Your task to perform on an android device: open app "Microsoft Authenticator" (install if not already installed), go to login, and select forgot password Image 0: 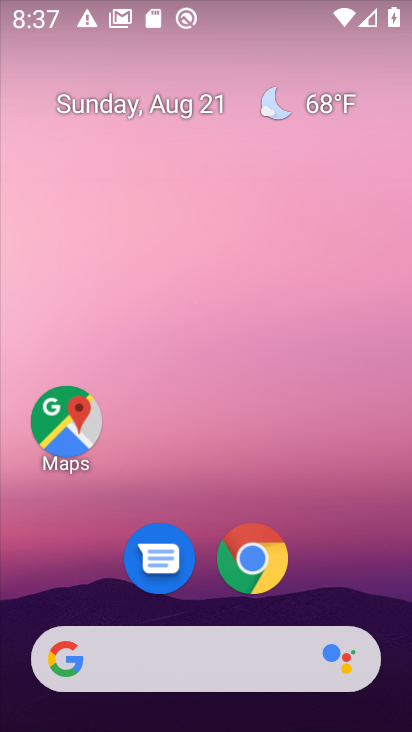
Step 0: drag from (140, 659) to (235, 140)
Your task to perform on an android device: open app "Microsoft Authenticator" (install if not already installed), go to login, and select forgot password Image 1: 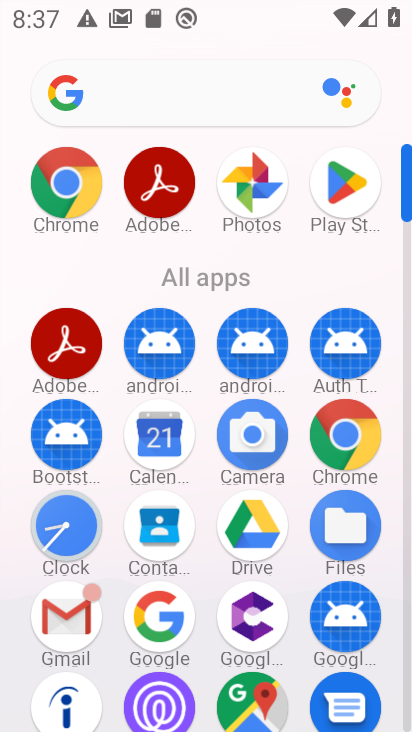
Step 1: click (338, 171)
Your task to perform on an android device: open app "Microsoft Authenticator" (install if not already installed), go to login, and select forgot password Image 2: 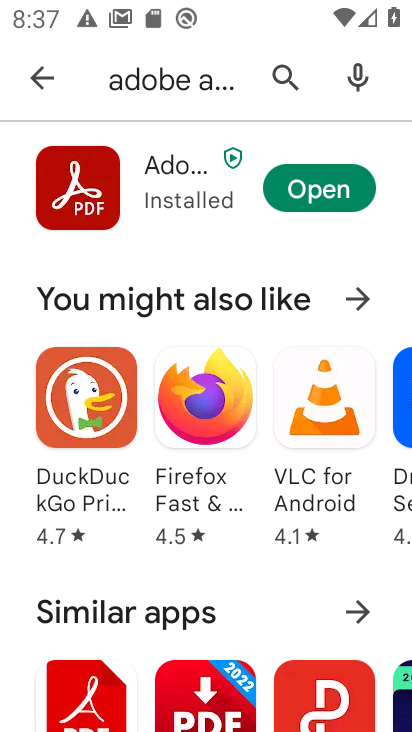
Step 2: click (291, 78)
Your task to perform on an android device: open app "Microsoft Authenticator" (install if not already installed), go to login, and select forgot password Image 3: 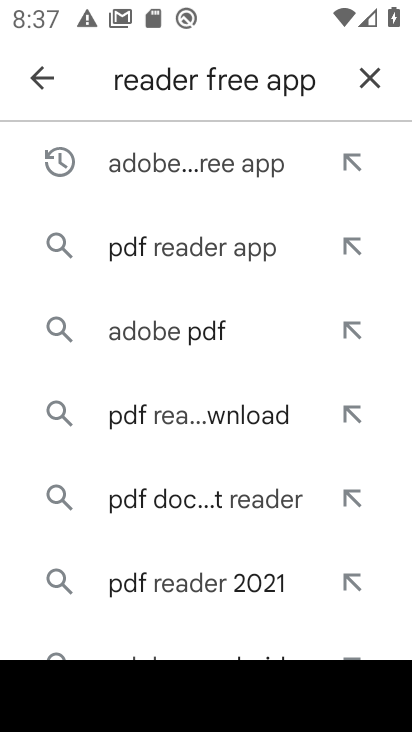
Step 3: click (376, 83)
Your task to perform on an android device: open app "Microsoft Authenticator" (install if not already installed), go to login, and select forgot password Image 4: 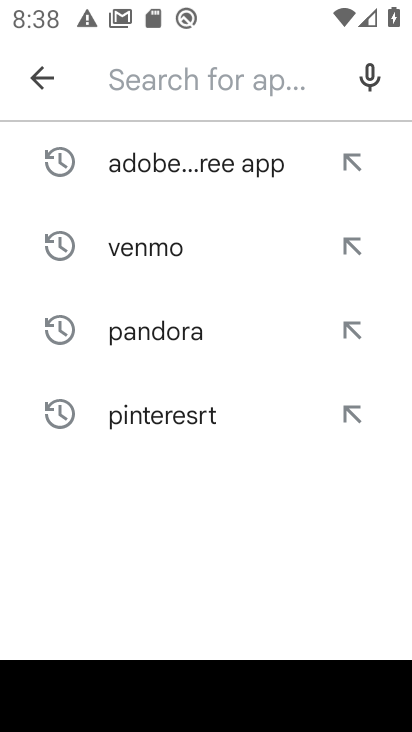
Step 4: type "Microsoft Authenticator"
Your task to perform on an android device: open app "Microsoft Authenticator" (install if not already installed), go to login, and select forgot password Image 5: 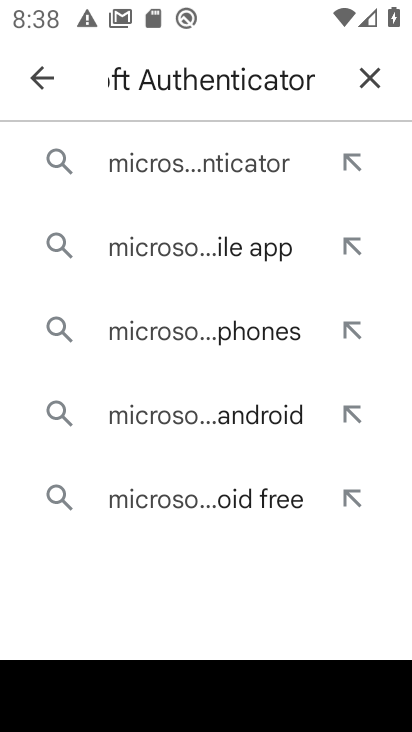
Step 5: click (220, 156)
Your task to perform on an android device: open app "Microsoft Authenticator" (install if not already installed), go to login, and select forgot password Image 6: 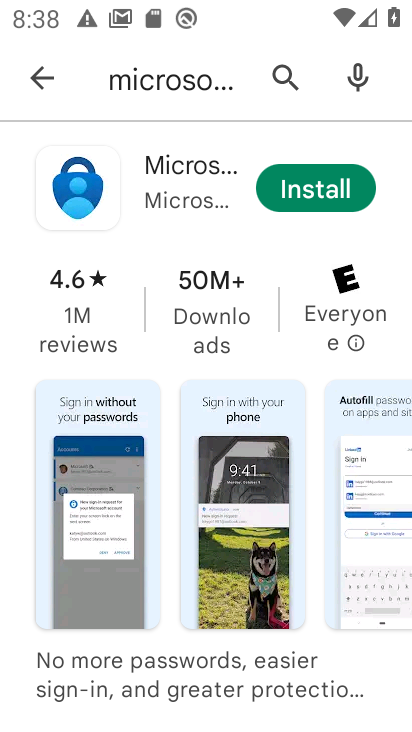
Step 6: click (320, 184)
Your task to perform on an android device: open app "Microsoft Authenticator" (install if not already installed), go to login, and select forgot password Image 7: 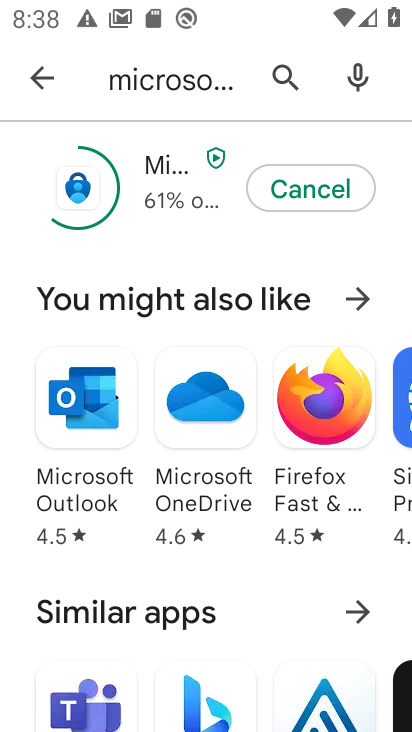
Step 7: click (320, 184)
Your task to perform on an android device: open app "Microsoft Authenticator" (install if not already installed), go to login, and select forgot password Image 8: 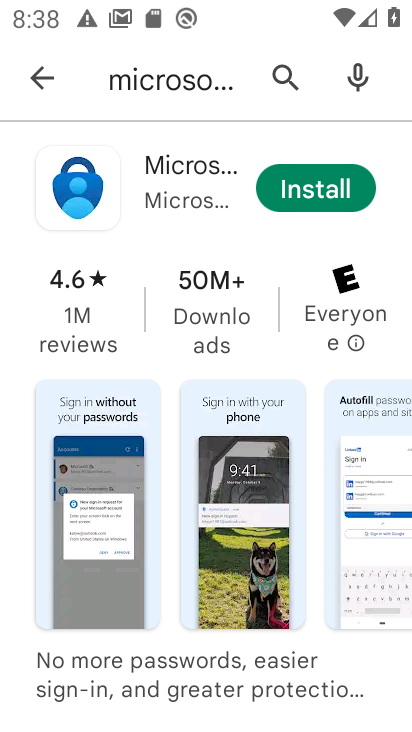
Step 8: click (320, 184)
Your task to perform on an android device: open app "Microsoft Authenticator" (install if not already installed), go to login, and select forgot password Image 9: 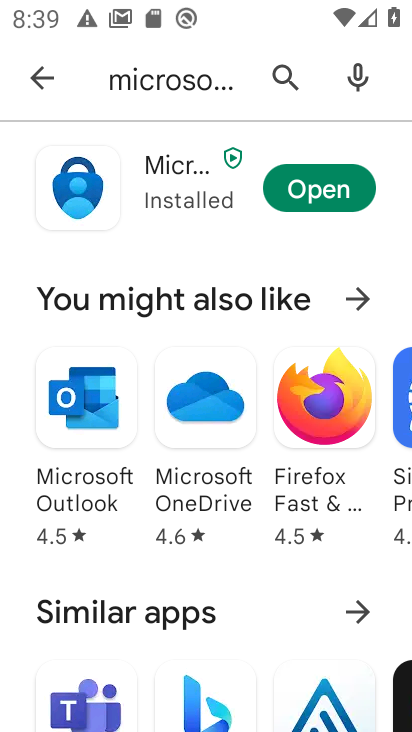
Step 9: click (288, 189)
Your task to perform on an android device: open app "Microsoft Authenticator" (install if not already installed), go to login, and select forgot password Image 10: 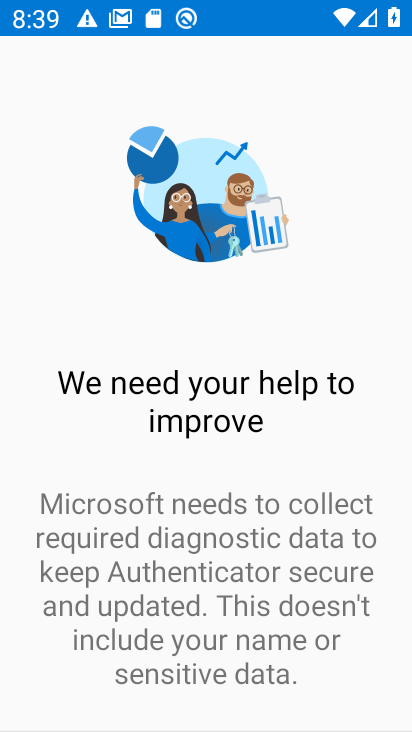
Step 10: drag from (241, 589) to (217, 122)
Your task to perform on an android device: open app "Microsoft Authenticator" (install if not already installed), go to login, and select forgot password Image 11: 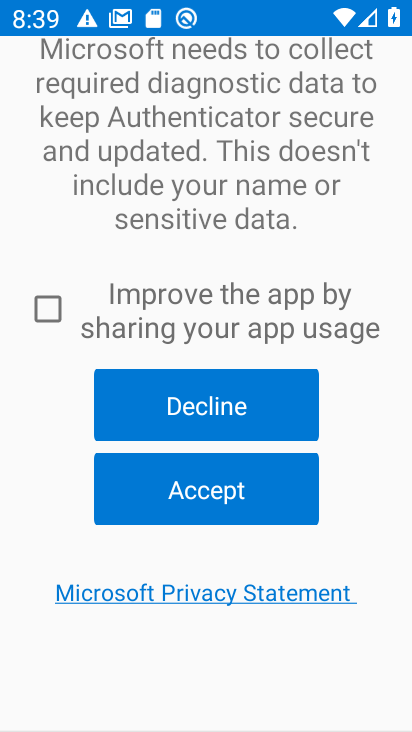
Step 11: click (40, 308)
Your task to perform on an android device: open app "Microsoft Authenticator" (install if not already installed), go to login, and select forgot password Image 12: 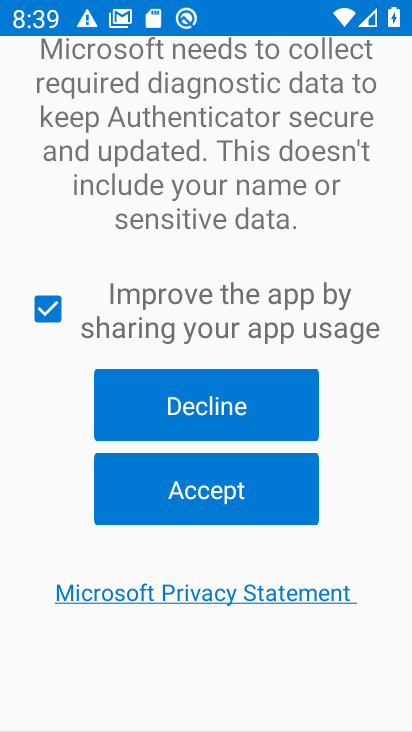
Step 12: click (212, 508)
Your task to perform on an android device: open app "Microsoft Authenticator" (install if not already installed), go to login, and select forgot password Image 13: 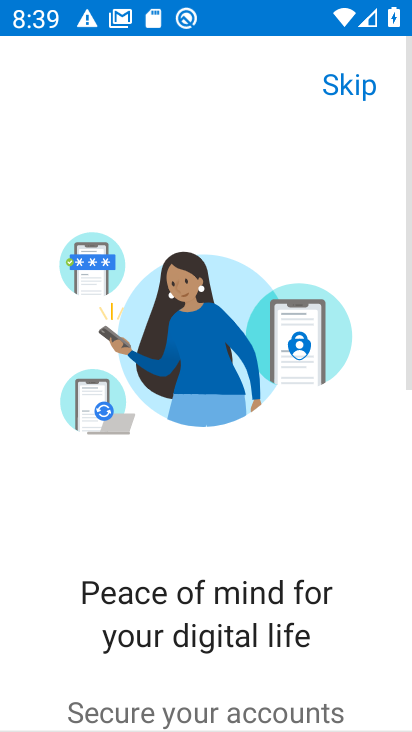
Step 13: drag from (227, 543) to (257, 159)
Your task to perform on an android device: open app "Microsoft Authenticator" (install if not already installed), go to login, and select forgot password Image 14: 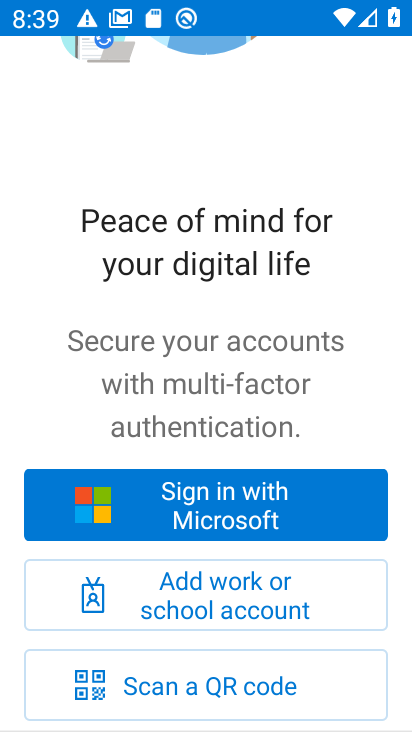
Step 14: click (224, 512)
Your task to perform on an android device: open app "Microsoft Authenticator" (install if not already installed), go to login, and select forgot password Image 15: 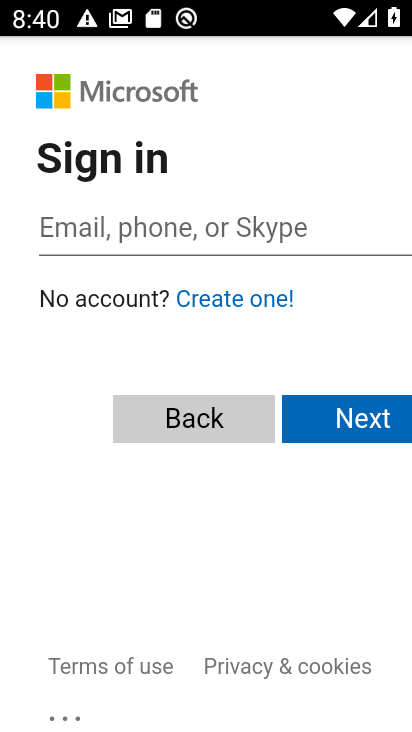
Step 15: task complete